Your task to perform on an android device: Open Yahoo.com Image 0: 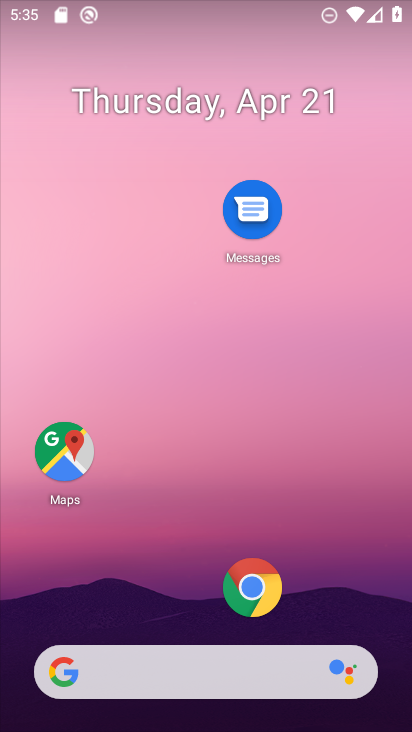
Step 0: press home button
Your task to perform on an android device: Open Yahoo.com Image 1: 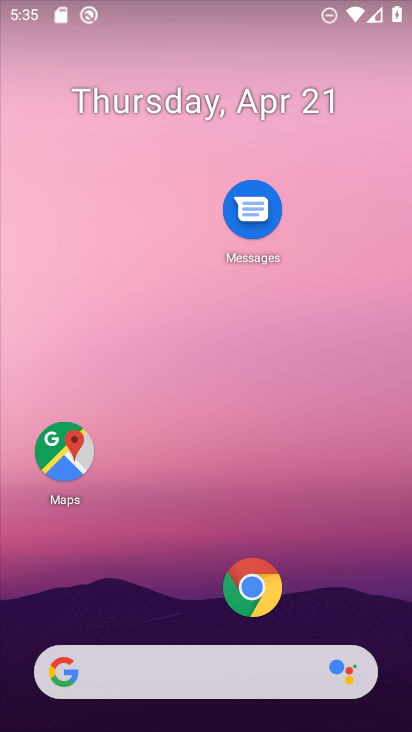
Step 1: click (251, 586)
Your task to perform on an android device: Open Yahoo.com Image 2: 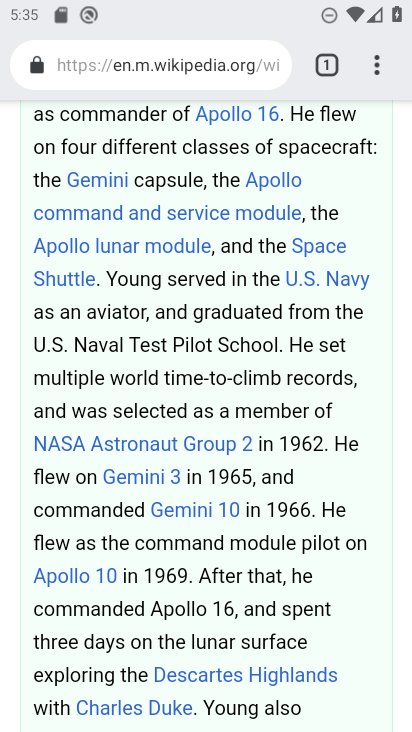
Step 2: click (329, 66)
Your task to perform on an android device: Open Yahoo.com Image 3: 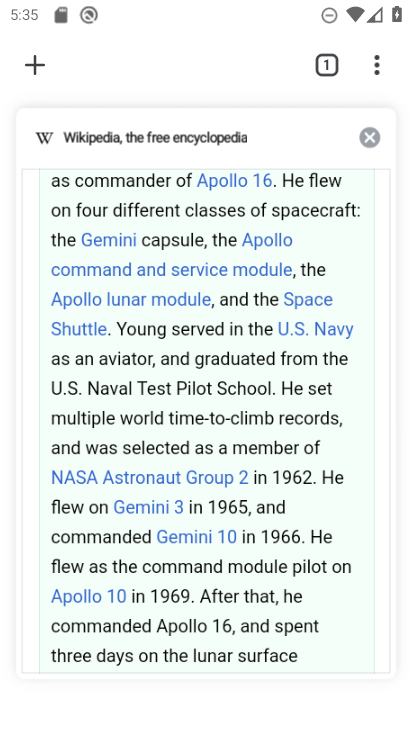
Step 3: click (35, 64)
Your task to perform on an android device: Open Yahoo.com Image 4: 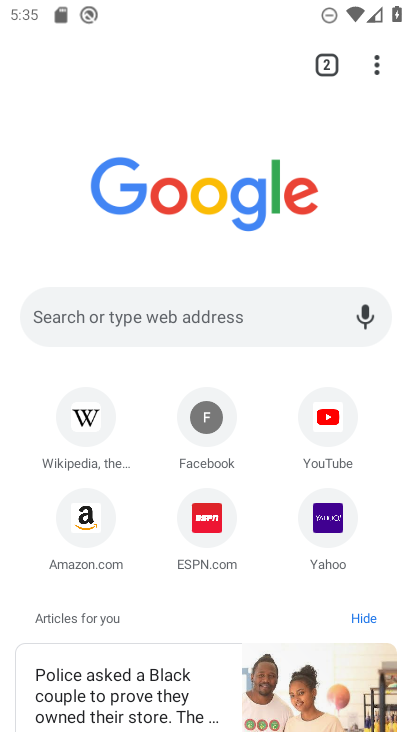
Step 4: click (330, 514)
Your task to perform on an android device: Open Yahoo.com Image 5: 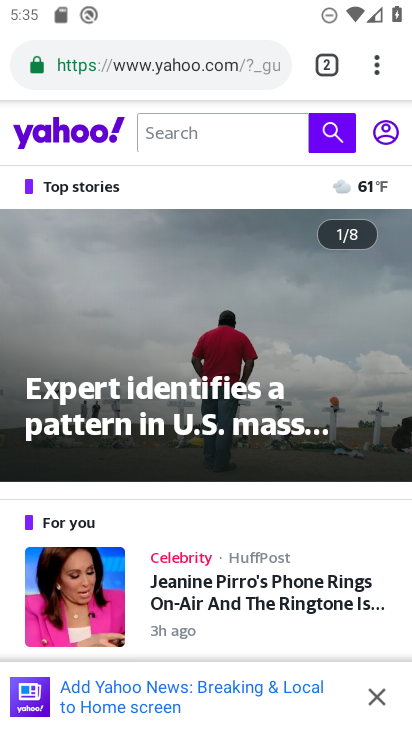
Step 5: task complete